Your task to perform on an android device: Open Google Chrome Image 0: 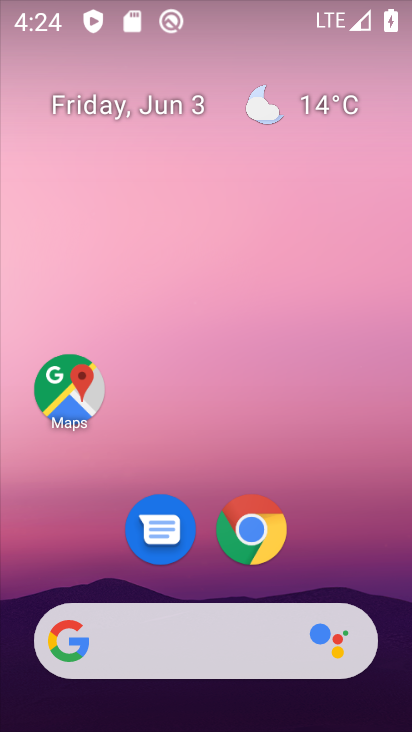
Step 0: click (246, 530)
Your task to perform on an android device: Open Google Chrome Image 1: 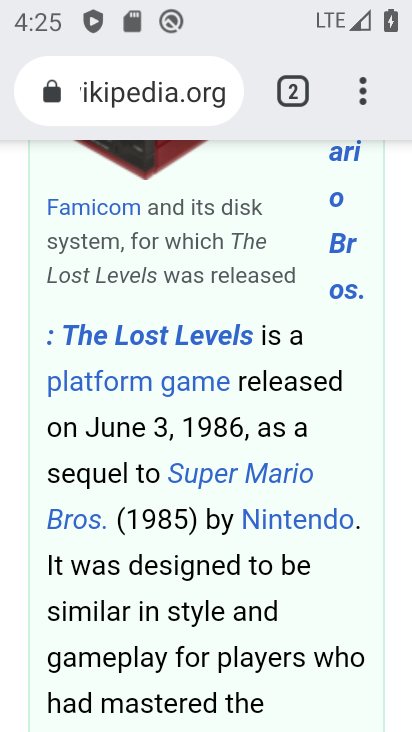
Step 1: click (289, 88)
Your task to perform on an android device: Open Google Chrome Image 2: 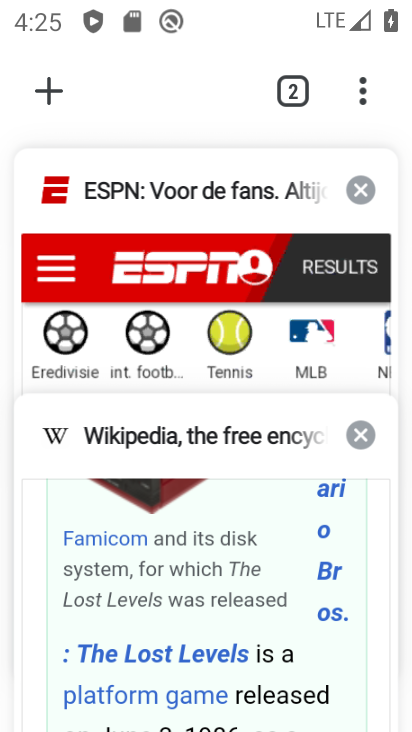
Step 2: click (359, 189)
Your task to perform on an android device: Open Google Chrome Image 3: 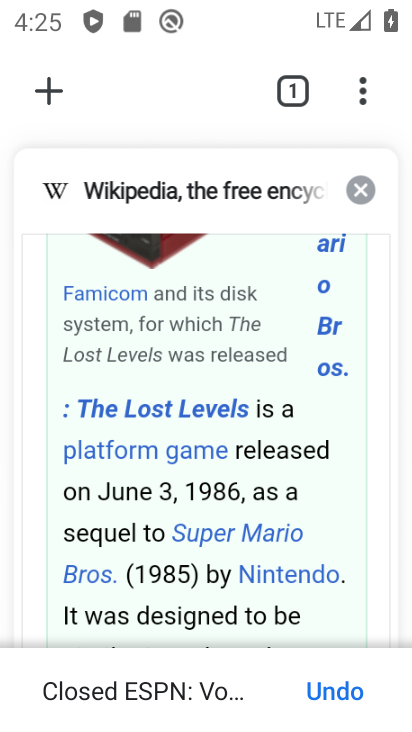
Step 3: click (360, 186)
Your task to perform on an android device: Open Google Chrome Image 4: 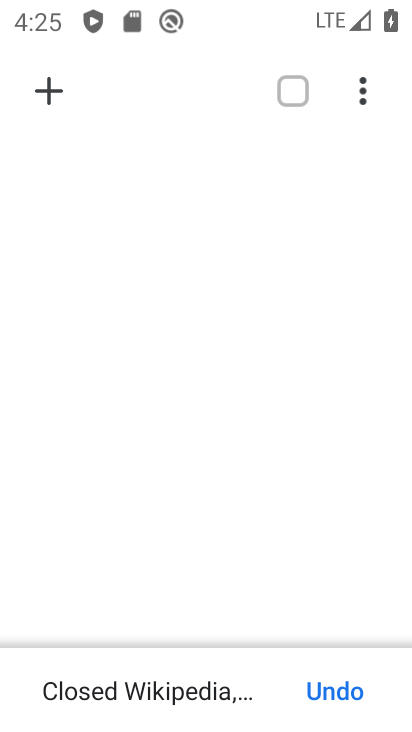
Step 4: click (55, 95)
Your task to perform on an android device: Open Google Chrome Image 5: 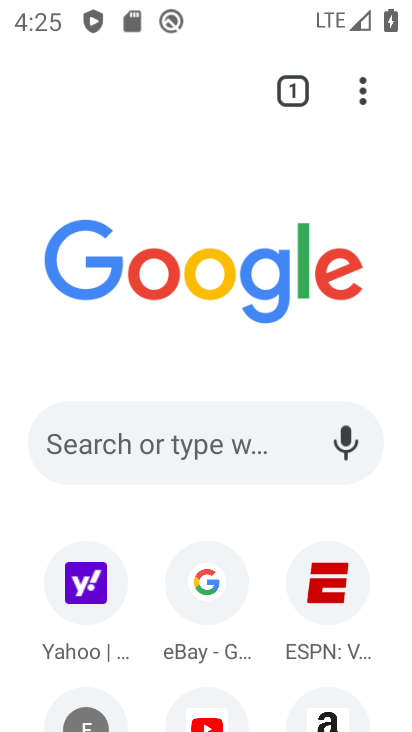
Step 5: task complete